Your task to perform on an android device: turn off smart reply in the gmail app Image 0: 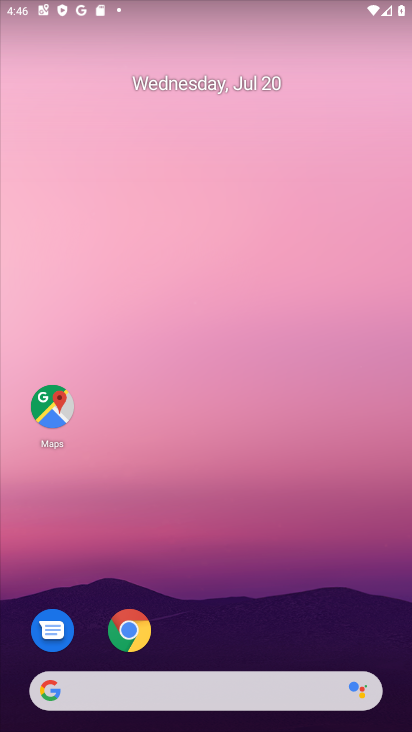
Step 0: drag from (236, 690) to (263, 16)
Your task to perform on an android device: turn off smart reply in the gmail app Image 1: 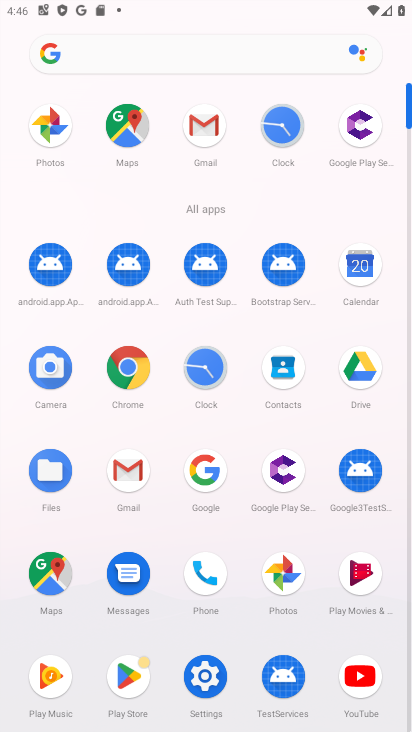
Step 1: click (200, 124)
Your task to perform on an android device: turn off smart reply in the gmail app Image 2: 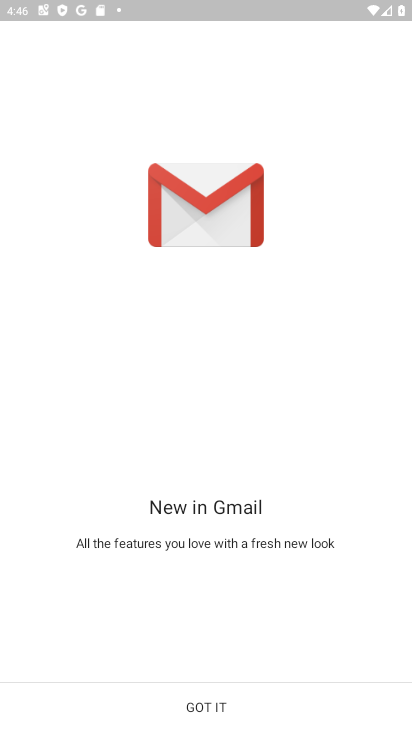
Step 2: click (204, 705)
Your task to perform on an android device: turn off smart reply in the gmail app Image 3: 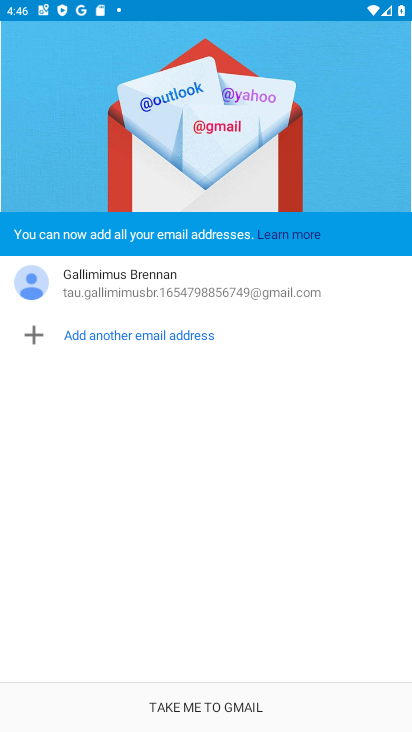
Step 3: click (204, 705)
Your task to perform on an android device: turn off smart reply in the gmail app Image 4: 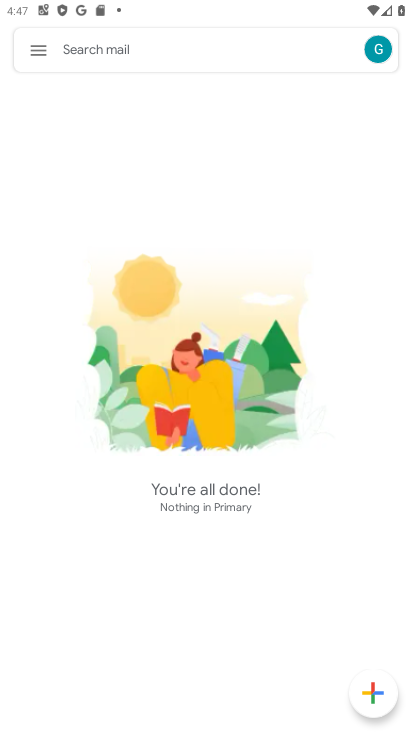
Step 4: click (40, 48)
Your task to perform on an android device: turn off smart reply in the gmail app Image 5: 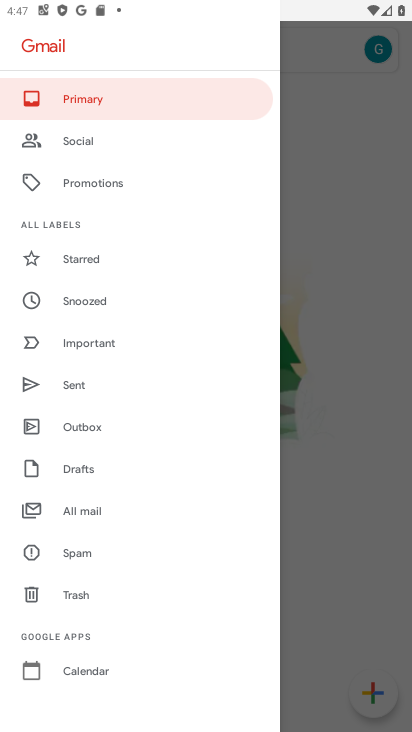
Step 5: drag from (127, 633) to (203, 356)
Your task to perform on an android device: turn off smart reply in the gmail app Image 6: 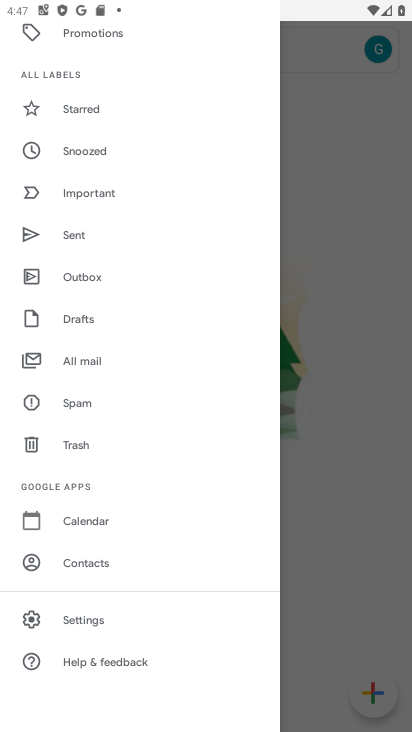
Step 6: click (84, 622)
Your task to perform on an android device: turn off smart reply in the gmail app Image 7: 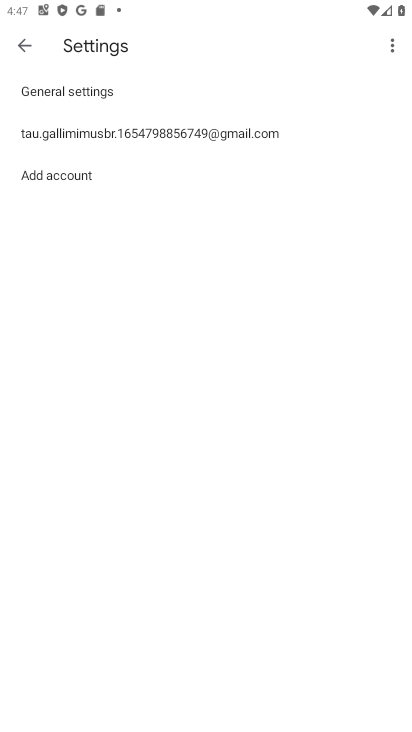
Step 7: click (194, 133)
Your task to perform on an android device: turn off smart reply in the gmail app Image 8: 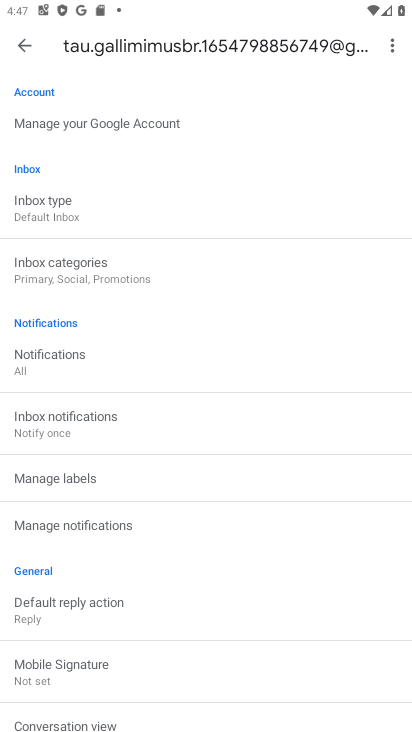
Step 8: drag from (87, 554) to (292, 205)
Your task to perform on an android device: turn off smart reply in the gmail app Image 9: 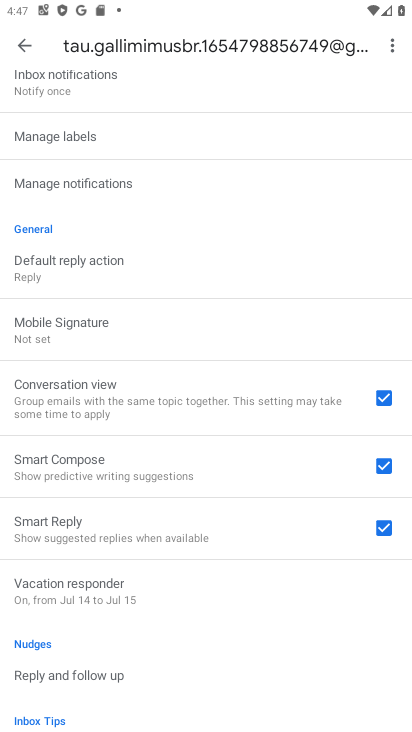
Step 9: click (386, 523)
Your task to perform on an android device: turn off smart reply in the gmail app Image 10: 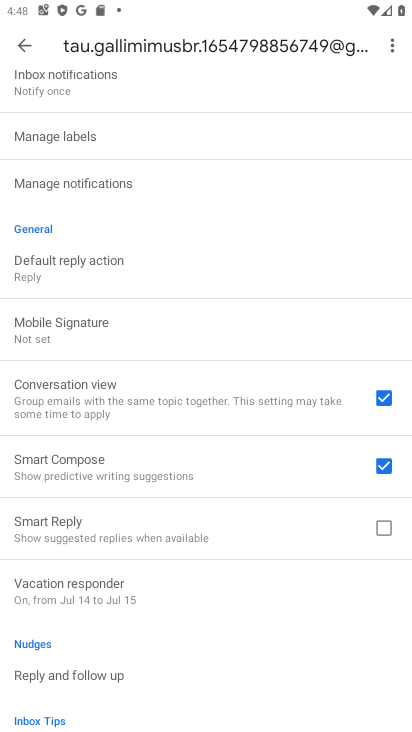
Step 10: task complete